Your task to perform on an android device: see sites visited before in the chrome app Image 0: 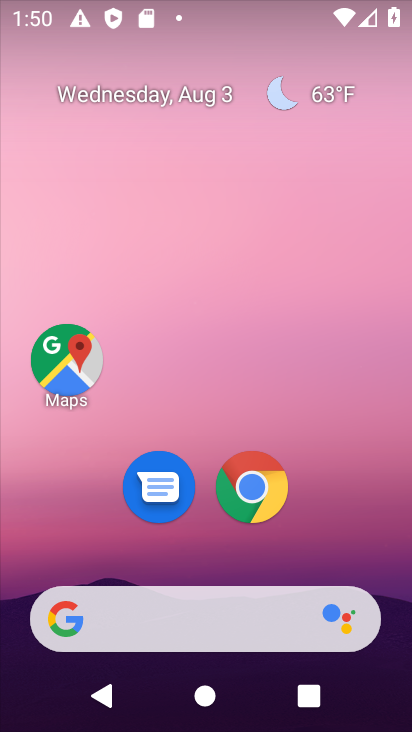
Step 0: drag from (341, 373) to (315, 41)
Your task to perform on an android device: see sites visited before in the chrome app Image 1: 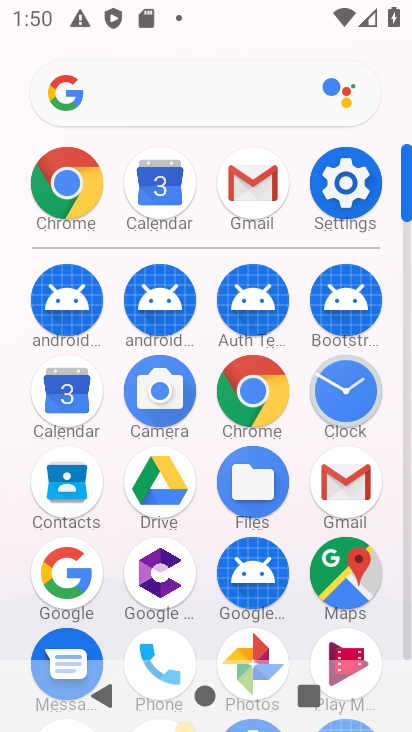
Step 1: click (251, 451)
Your task to perform on an android device: see sites visited before in the chrome app Image 2: 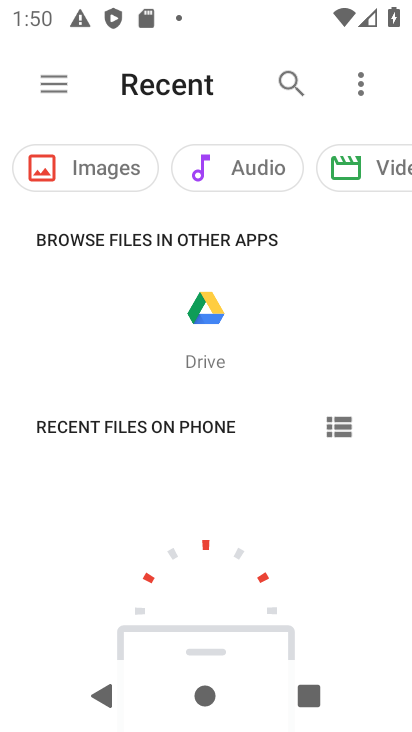
Step 2: press home button
Your task to perform on an android device: see sites visited before in the chrome app Image 3: 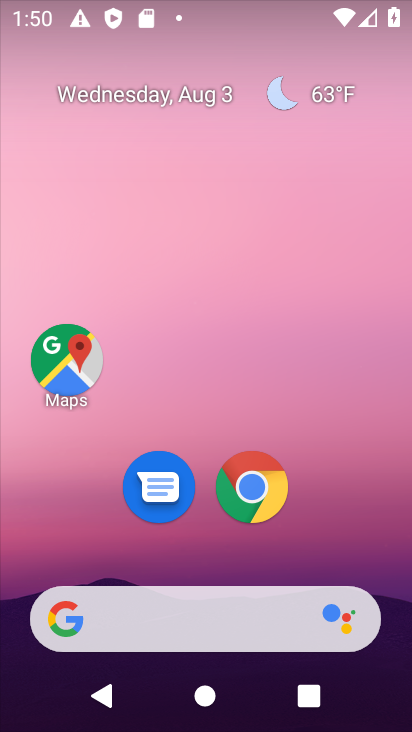
Step 3: click (267, 478)
Your task to perform on an android device: see sites visited before in the chrome app Image 4: 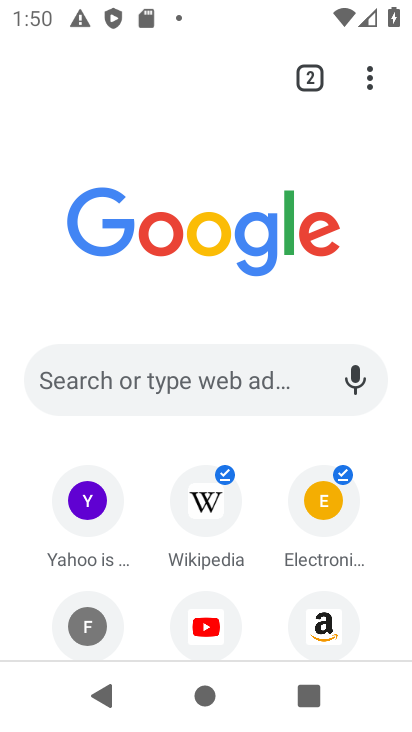
Step 4: drag from (374, 75) to (91, 431)
Your task to perform on an android device: see sites visited before in the chrome app Image 5: 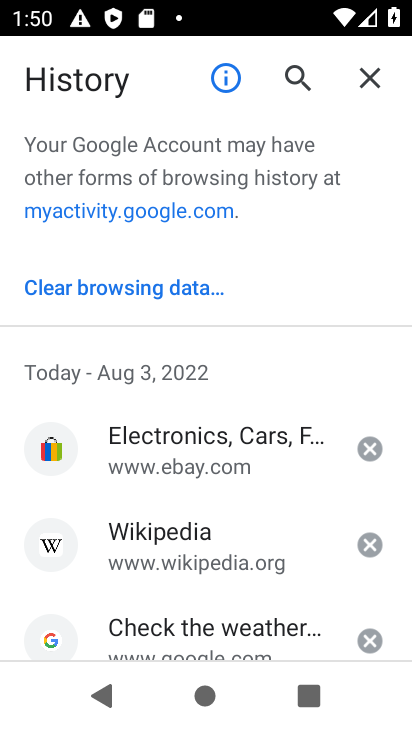
Step 5: click (180, 428)
Your task to perform on an android device: see sites visited before in the chrome app Image 6: 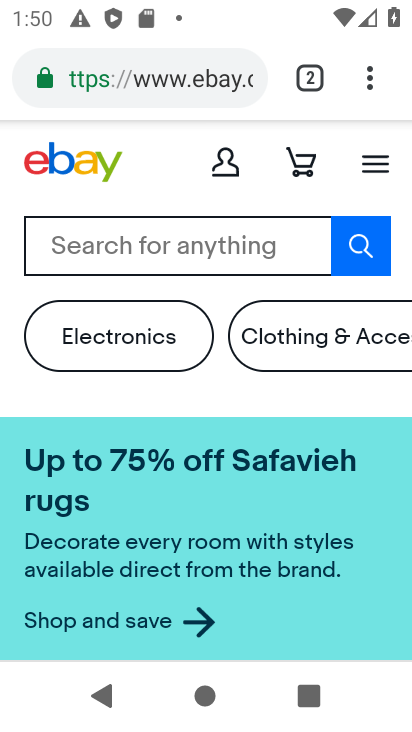
Step 6: task complete